Your task to perform on an android device: set the timer Image 0: 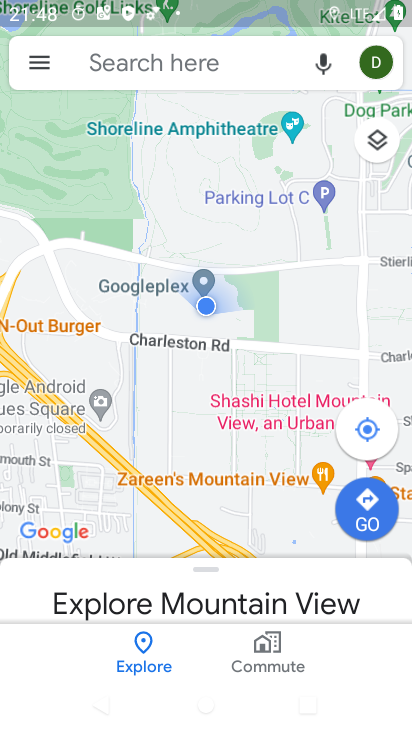
Step 0: press home button
Your task to perform on an android device: set the timer Image 1: 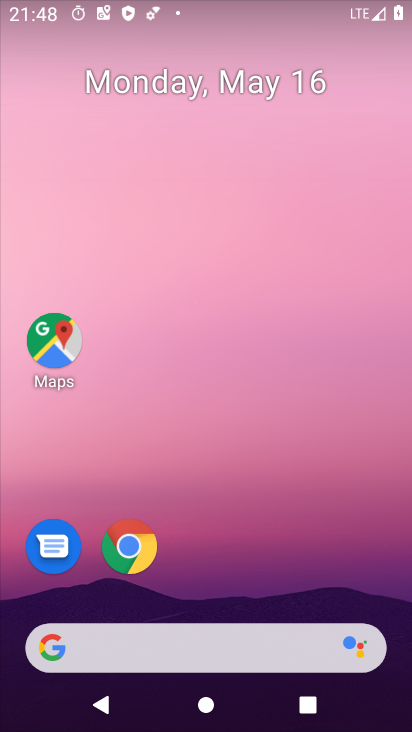
Step 1: drag from (292, 665) to (308, 116)
Your task to perform on an android device: set the timer Image 2: 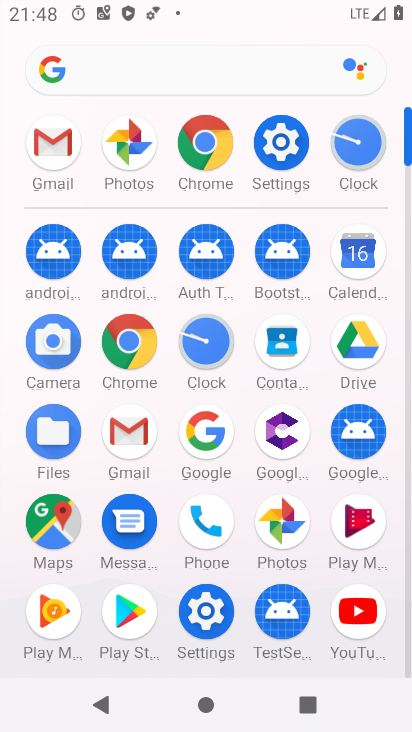
Step 2: click (331, 141)
Your task to perform on an android device: set the timer Image 3: 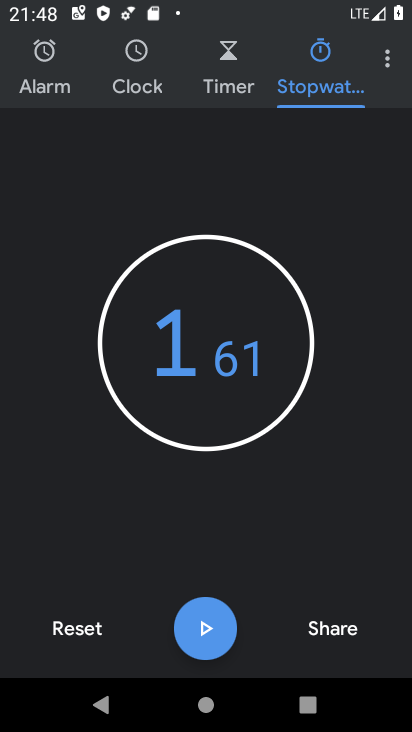
Step 3: click (391, 61)
Your task to perform on an android device: set the timer Image 4: 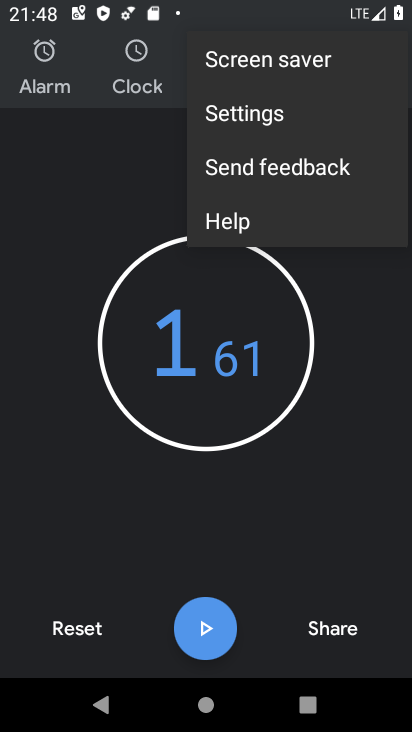
Step 4: click (294, 126)
Your task to perform on an android device: set the timer Image 5: 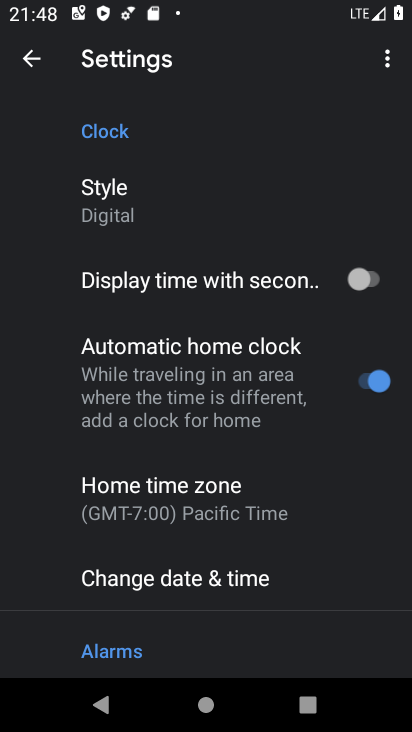
Step 5: drag from (254, 491) to (243, 330)
Your task to perform on an android device: set the timer Image 6: 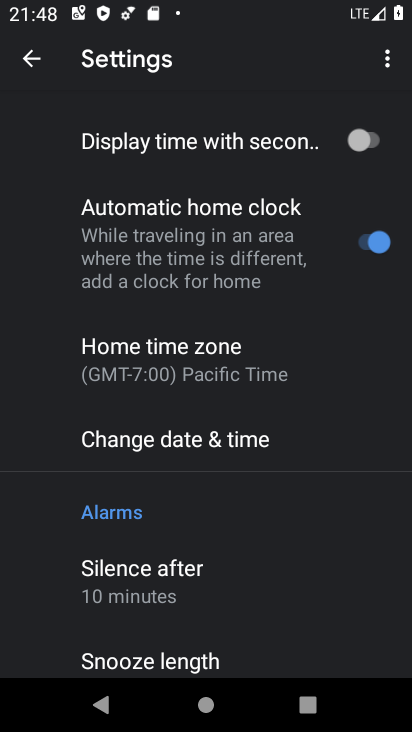
Step 6: click (47, 70)
Your task to perform on an android device: set the timer Image 7: 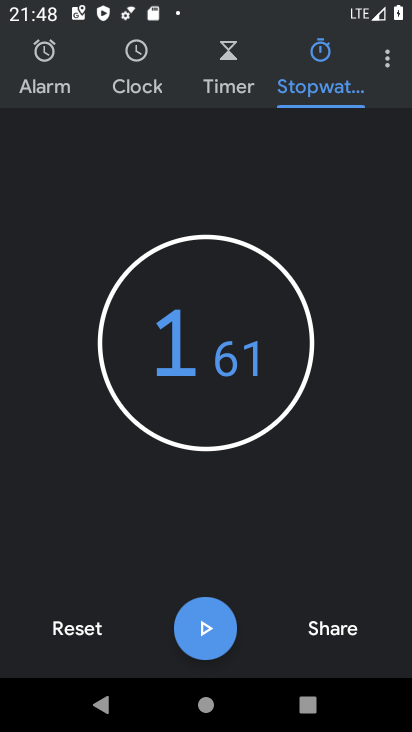
Step 7: click (230, 71)
Your task to perform on an android device: set the timer Image 8: 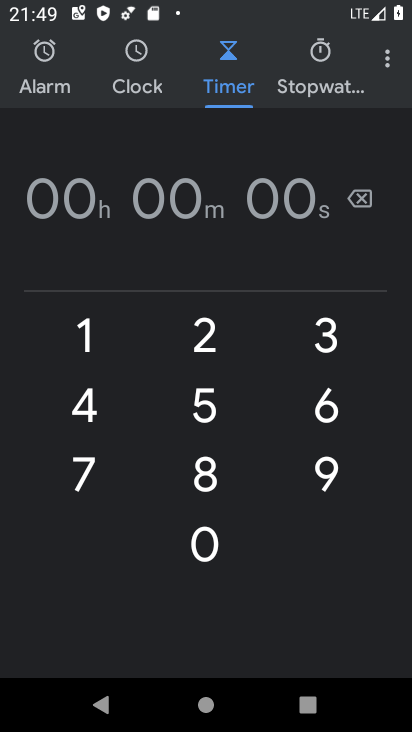
Step 8: click (225, 339)
Your task to perform on an android device: set the timer Image 9: 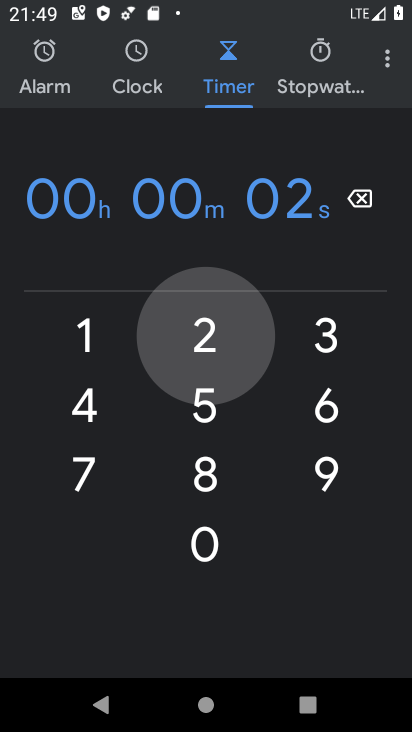
Step 9: click (201, 415)
Your task to perform on an android device: set the timer Image 10: 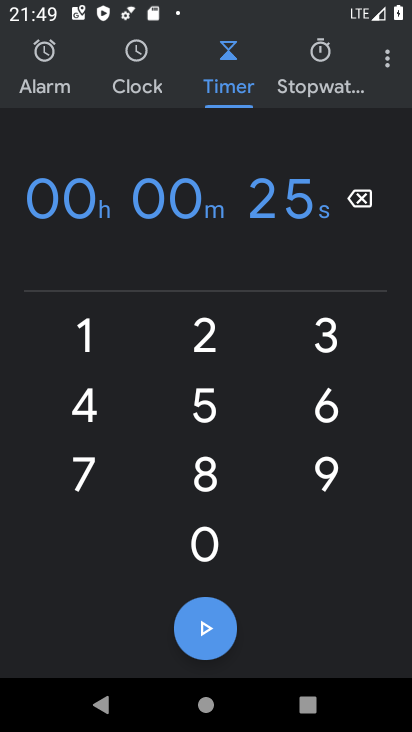
Step 10: click (84, 386)
Your task to perform on an android device: set the timer Image 11: 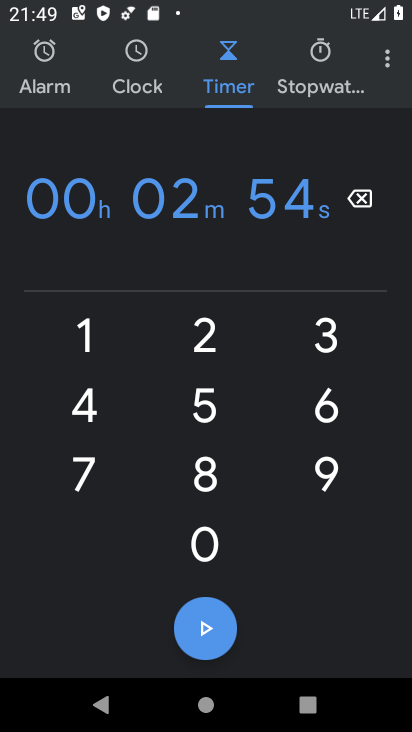
Step 11: click (319, 389)
Your task to perform on an android device: set the timer Image 12: 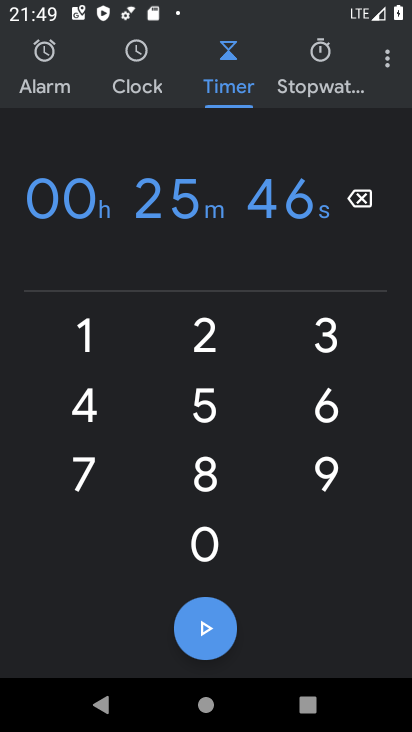
Step 12: click (234, 330)
Your task to perform on an android device: set the timer Image 13: 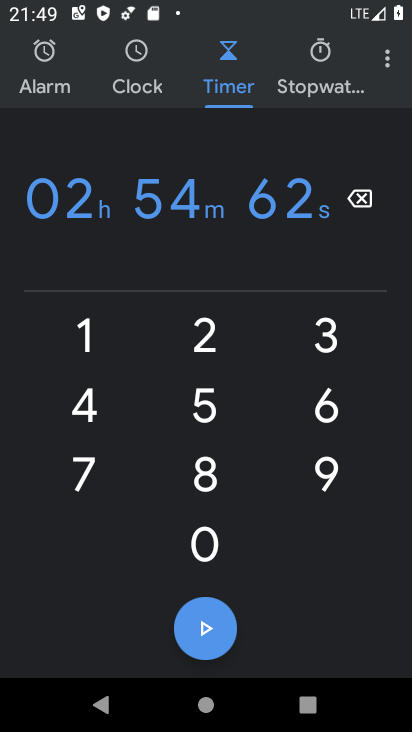
Step 13: task complete